Your task to perform on an android device: Go to accessibility settings Image 0: 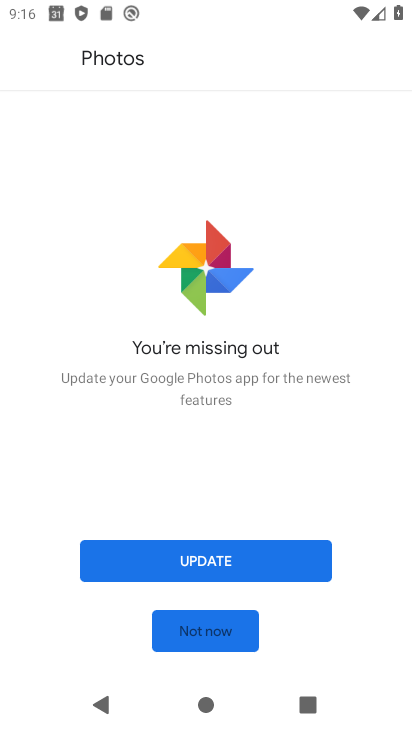
Step 0: press back button
Your task to perform on an android device: Go to accessibility settings Image 1: 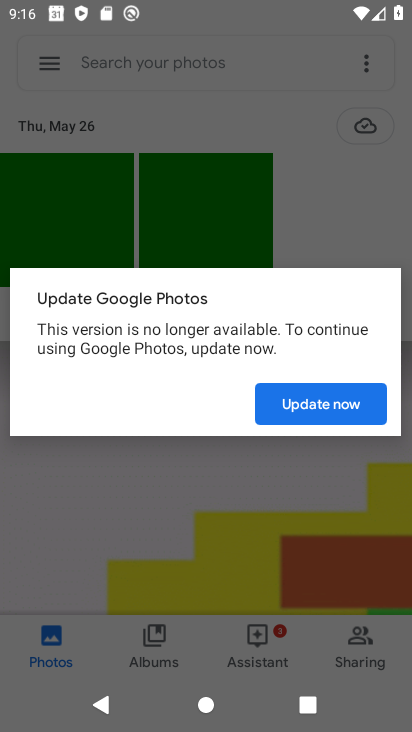
Step 1: press home button
Your task to perform on an android device: Go to accessibility settings Image 2: 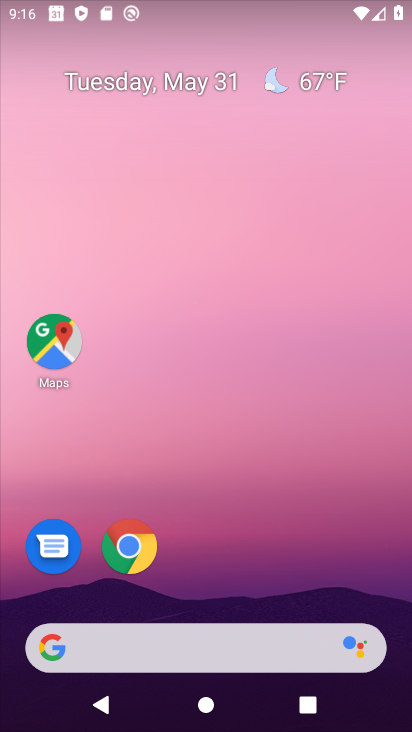
Step 2: drag from (183, 607) to (206, 189)
Your task to perform on an android device: Go to accessibility settings Image 3: 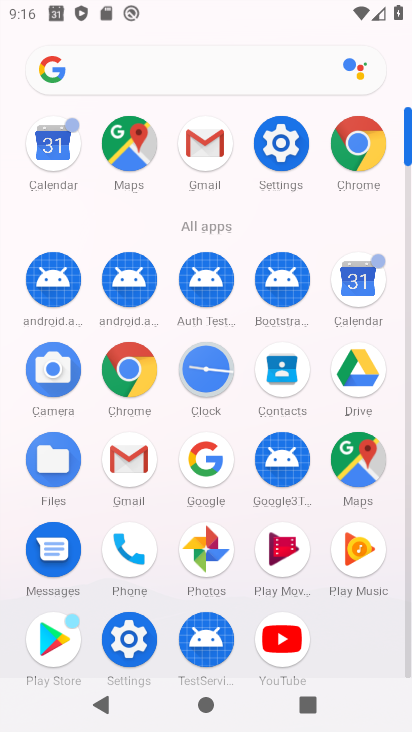
Step 3: click (277, 155)
Your task to perform on an android device: Go to accessibility settings Image 4: 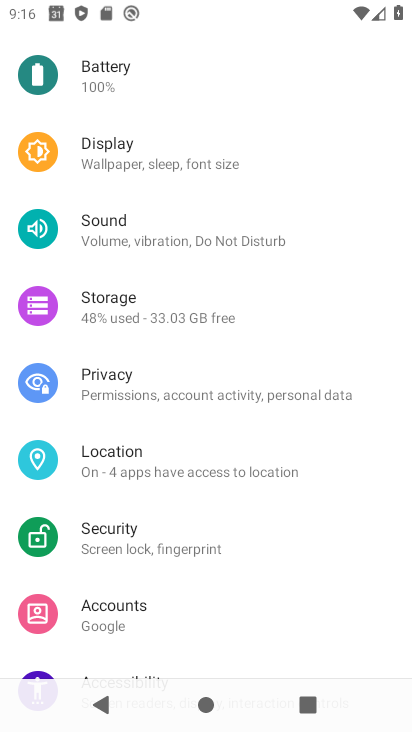
Step 4: drag from (191, 242) to (186, 554)
Your task to perform on an android device: Go to accessibility settings Image 5: 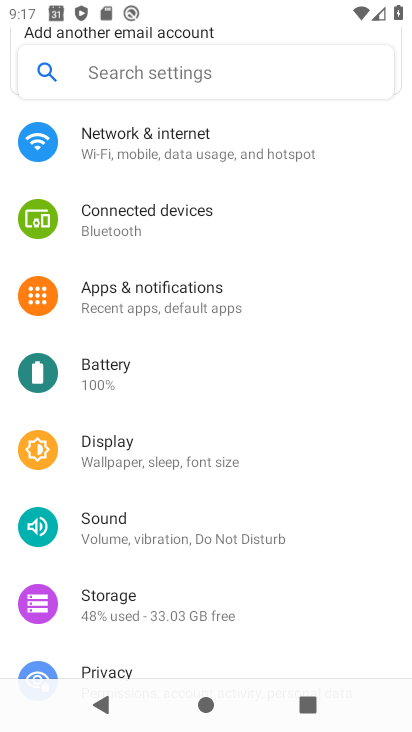
Step 5: drag from (156, 541) to (243, 140)
Your task to perform on an android device: Go to accessibility settings Image 6: 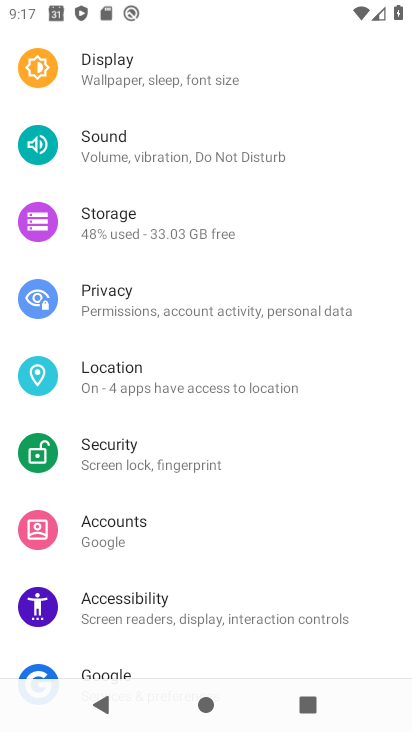
Step 6: click (138, 619)
Your task to perform on an android device: Go to accessibility settings Image 7: 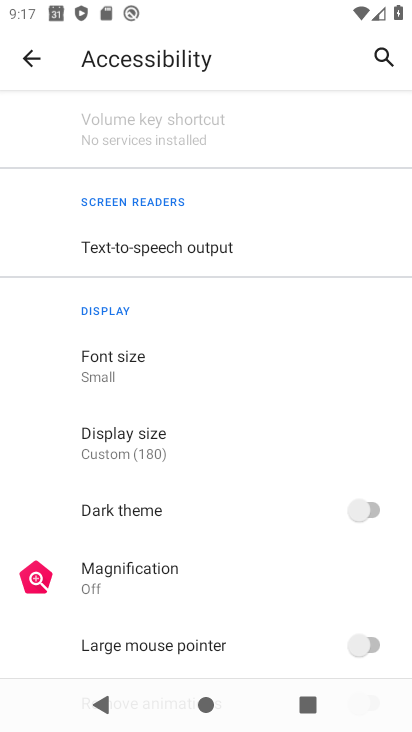
Step 7: task complete